Your task to perform on an android device: turn on priority inbox in the gmail app Image 0: 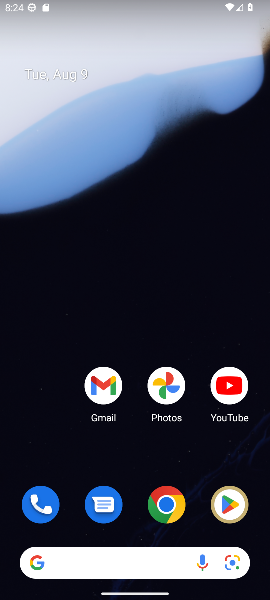
Step 0: click (99, 378)
Your task to perform on an android device: turn on priority inbox in the gmail app Image 1: 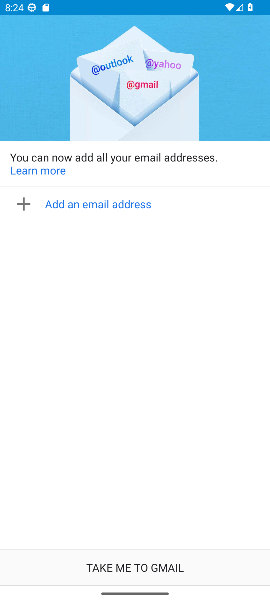
Step 1: click (123, 572)
Your task to perform on an android device: turn on priority inbox in the gmail app Image 2: 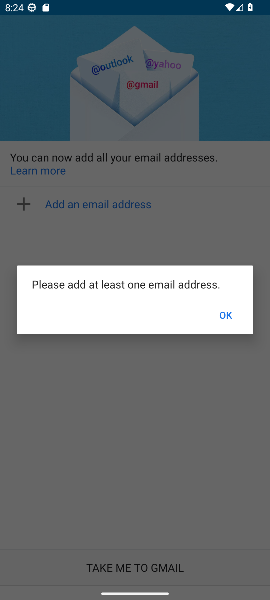
Step 2: click (231, 313)
Your task to perform on an android device: turn on priority inbox in the gmail app Image 3: 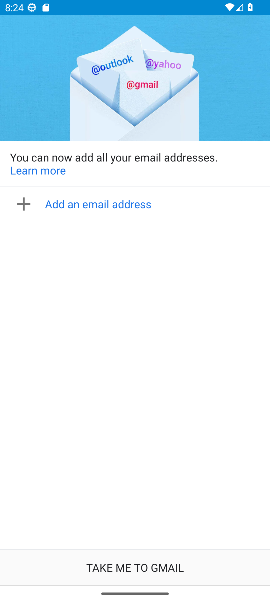
Step 3: click (148, 560)
Your task to perform on an android device: turn on priority inbox in the gmail app Image 4: 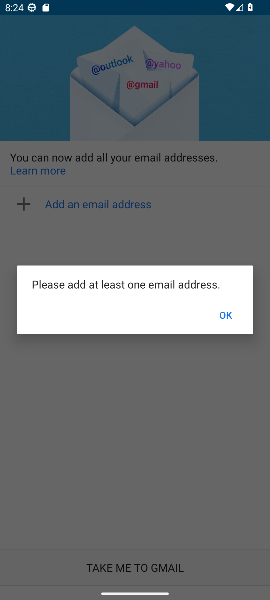
Step 4: click (222, 318)
Your task to perform on an android device: turn on priority inbox in the gmail app Image 5: 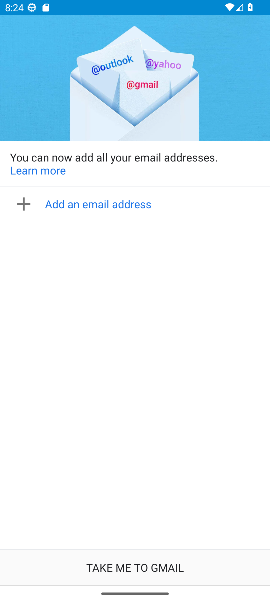
Step 5: click (133, 561)
Your task to perform on an android device: turn on priority inbox in the gmail app Image 6: 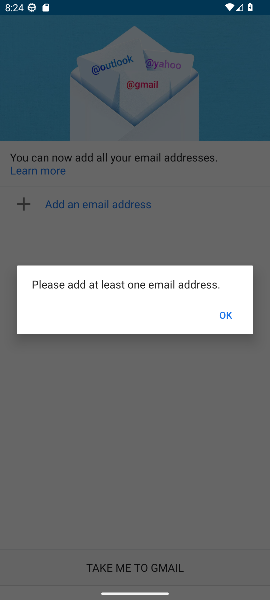
Step 6: task complete